Your task to perform on an android device: search for starred emails in the gmail app Image 0: 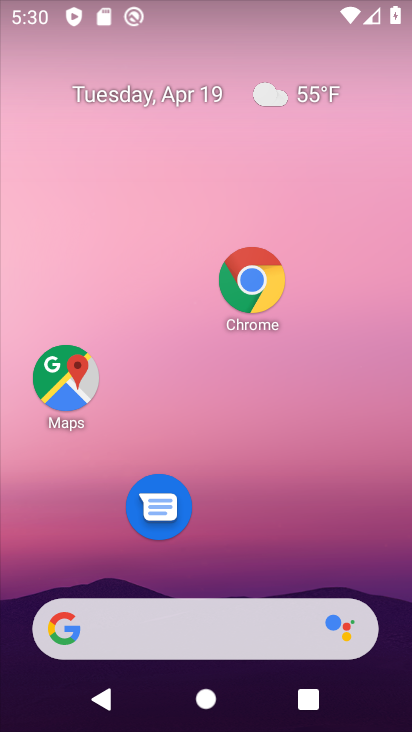
Step 0: drag from (230, 595) to (229, 247)
Your task to perform on an android device: search for starred emails in the gmail app Image 1: 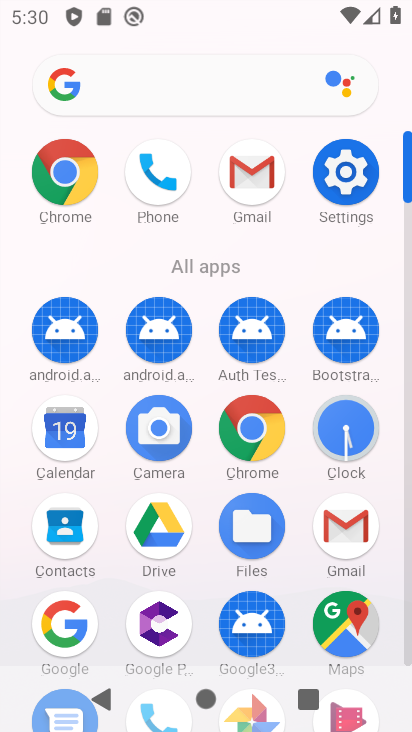
Step 1: click (247, 180)
Your task to perform on an android device: search for starred emails in the gmail app Image 2: 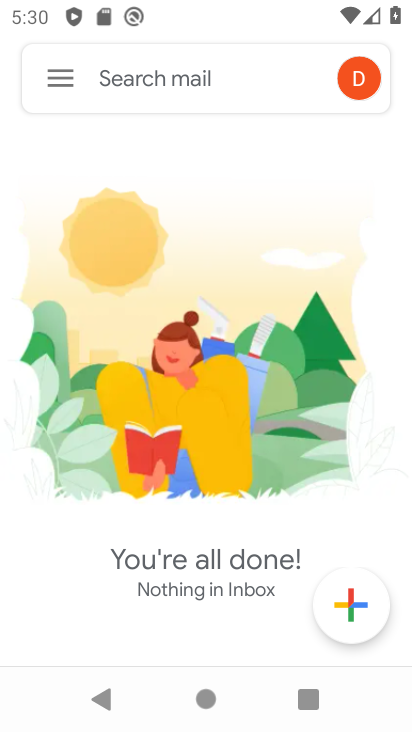
Step 2: click (55, 70)
Your task to perform on an android device: search for starred emails in the gmail app Image 3: 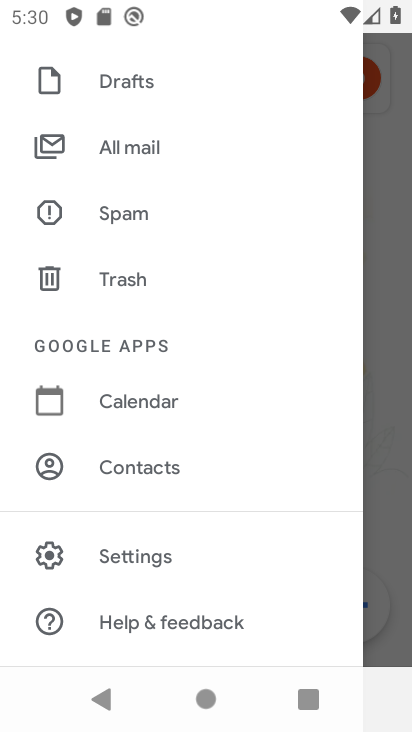
Step 3: drag from (171, 88) to (178, 508)
Your task to perform on an android device: search for starred emails in the gmail app Image 4: 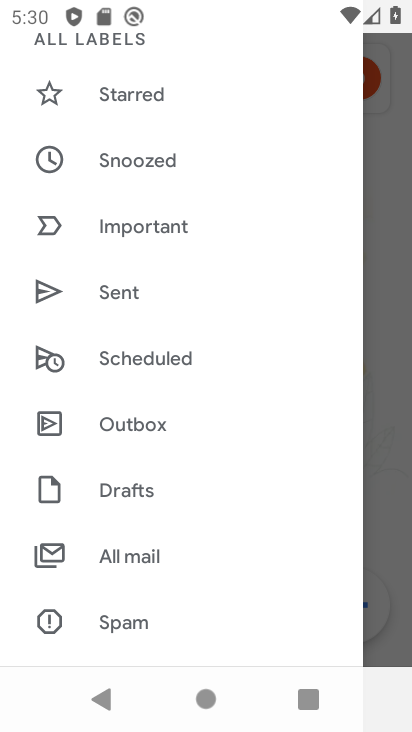
Step 4: click (143, 111)
Your task to perform on an android device: search for starred emails in the gmail app Image 5: 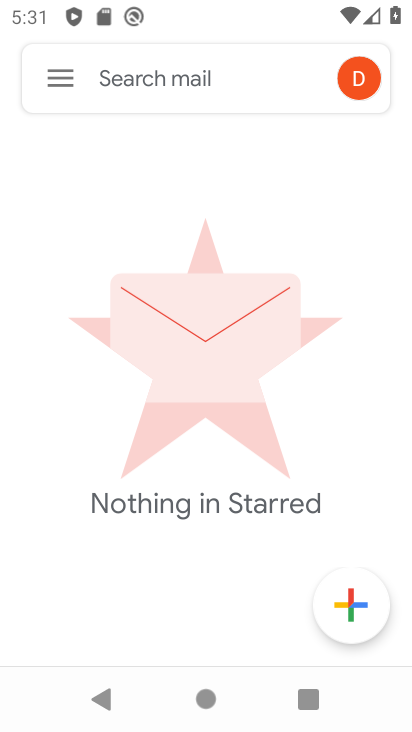
Step 5: task complete